Your task to perform on an android device: toggle translation in the chrome app Image 0: 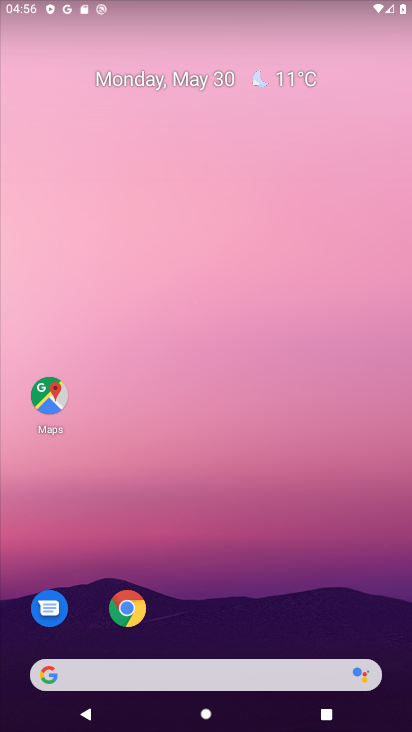
Step 0: click (122, 605)
Your task to perform on an android device: toggle translation in the chrome app Image 1: 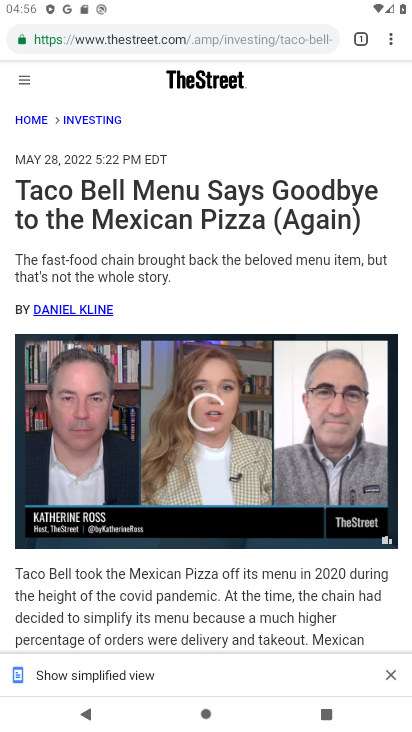
Step 1: click (392, 38)
Your task to perform on an android device: toggle translation in the chrome app Image 2: 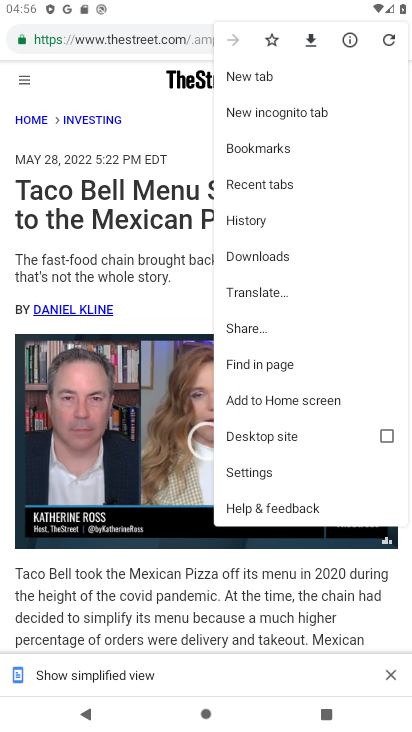
Step 2: click (249, 467)
Your task to perform on an android device: toggle translation in the chrome app Image 3: 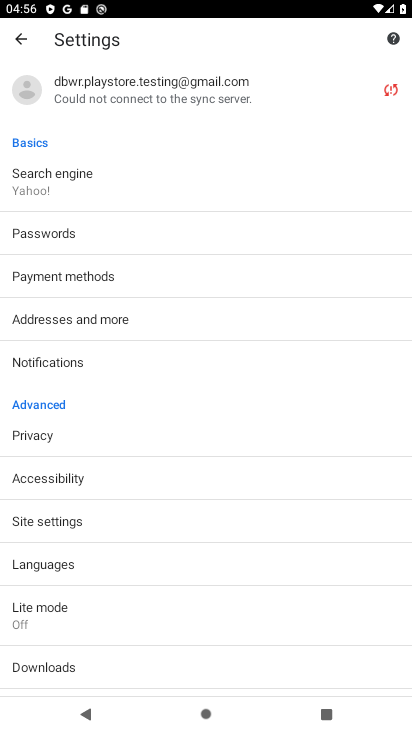
Step 3: click (64, 562)
Your task to perform on an android device: toggle translation in the chrome app Image 4: 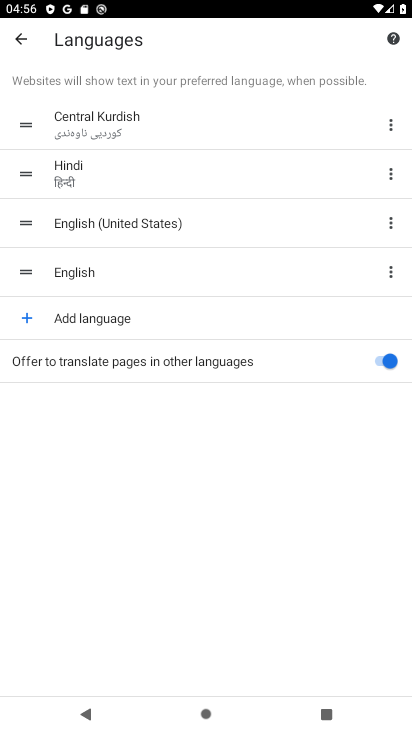
Step 4: click (377, 360)
Your task to perform on an android device: toggle translation in the chrome app Image 5: 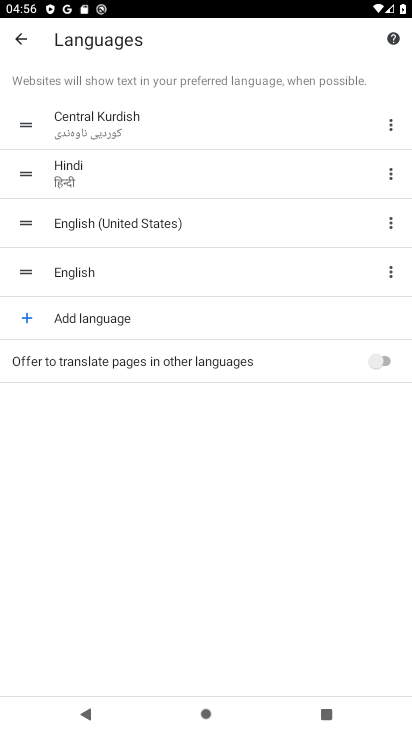
Step 5: task complete